Your task to perform on an android device: Clear the shopping cart on target. Image 0: 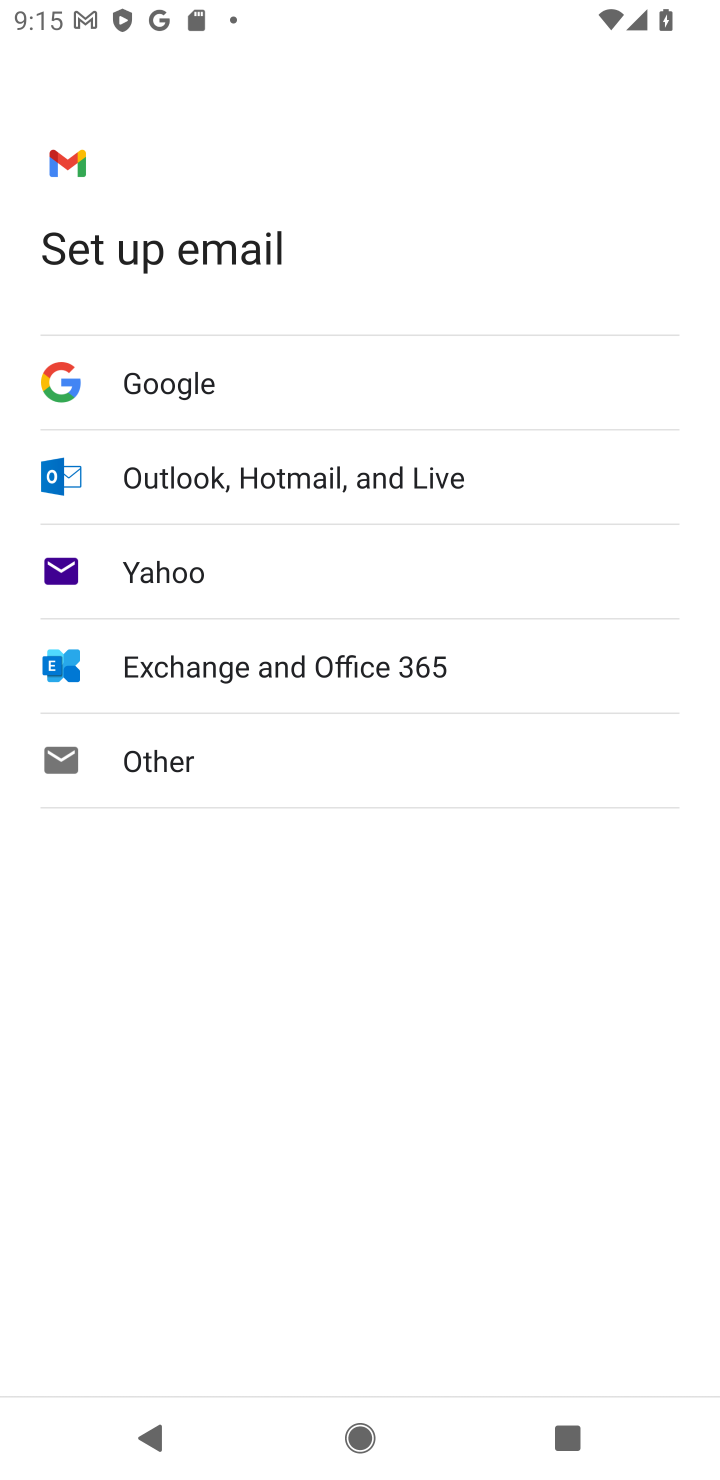
Step 0: press home button
Your task to perform on an android device: Clear the shopping cart on target. Image 1: 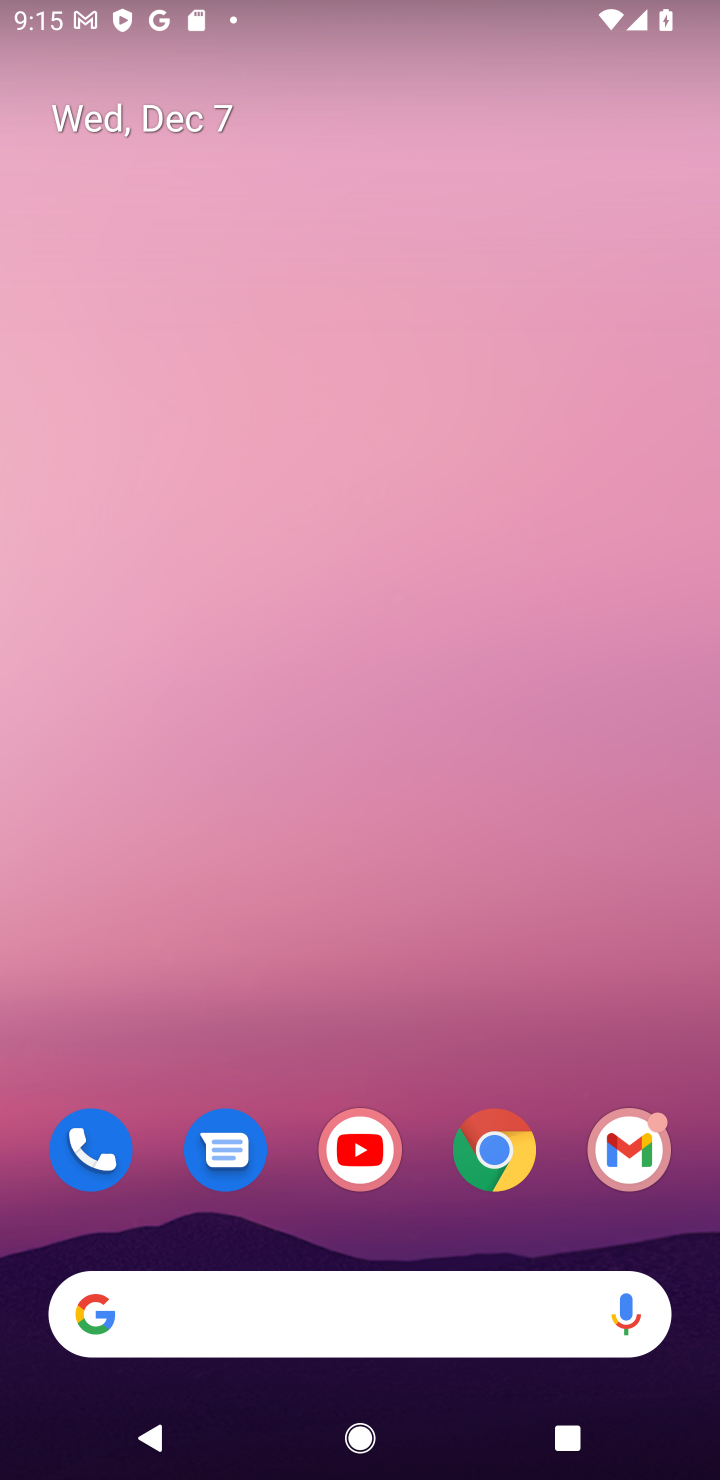
Step 1: click (468, 1148)
Your task to perform on an android device: Clear the shopping cart on target. Image 2: 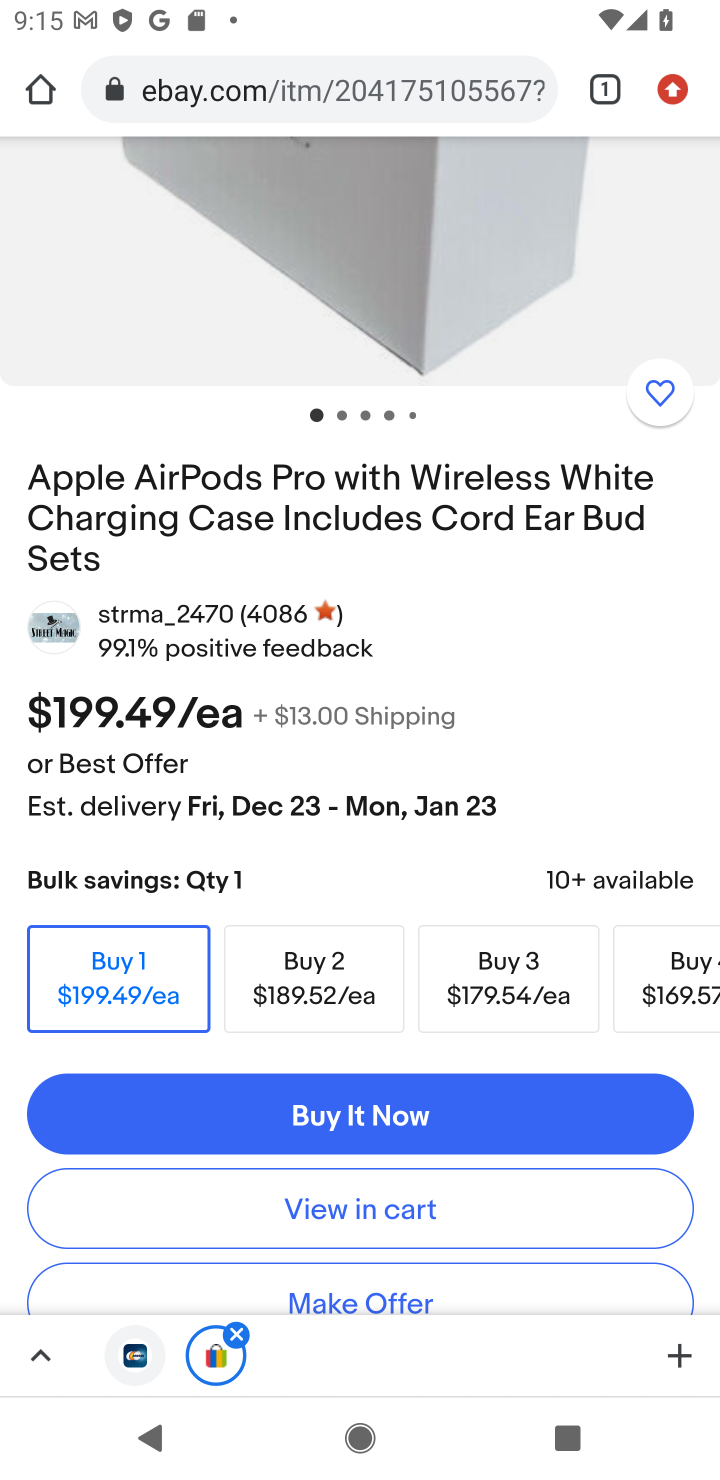
Step 2: click (378, 78)
Your task to perform on an android device: Clear the shopping cart on target. Image 3: 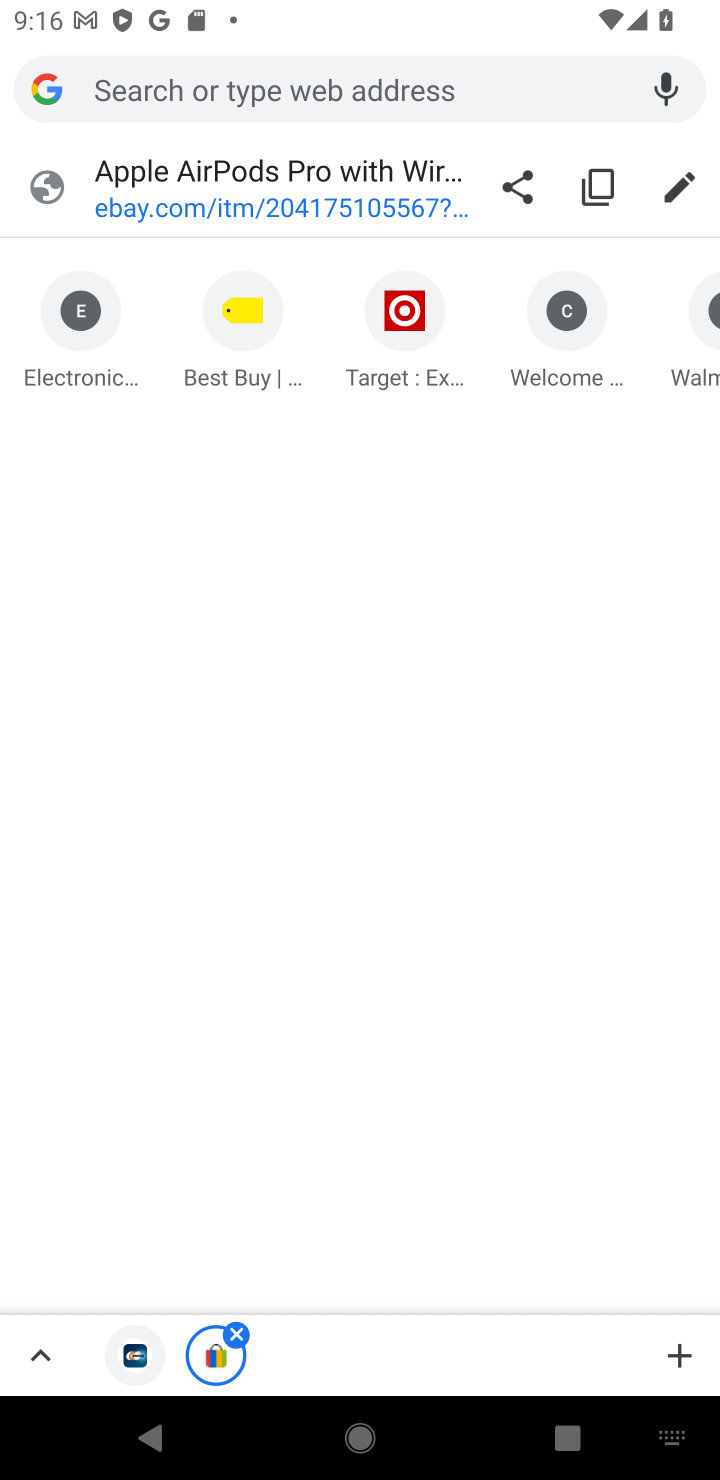
Step 3: click (397, 309)
Your task to perform on an android device: Clear the shopping cart on target. Image 4: 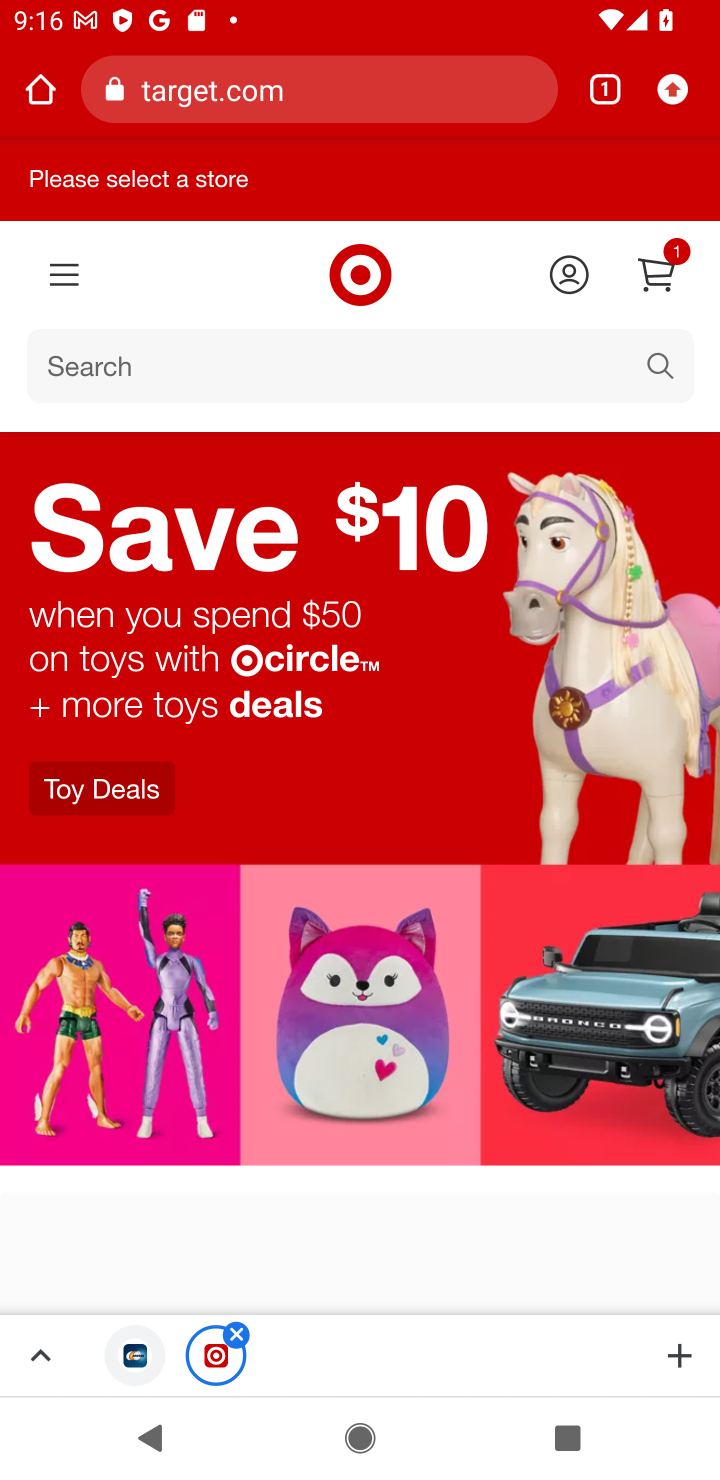
Step 4: click (654, 283)
Your task to perform on an android device: Clear the shopping cart on target. Image 5: 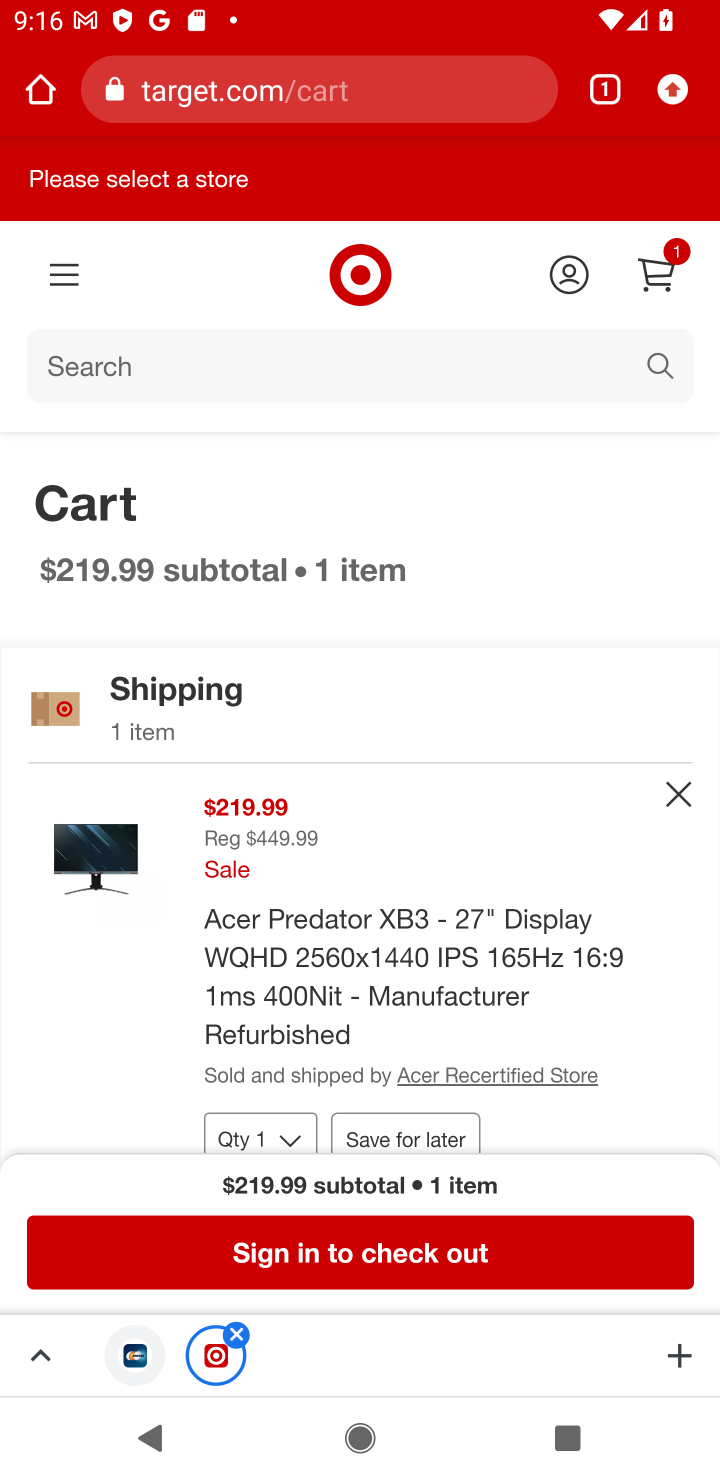
Step 5: click (683, 779)
Your task to perform on an android device: Clear the shopping cart on target. Image 6: 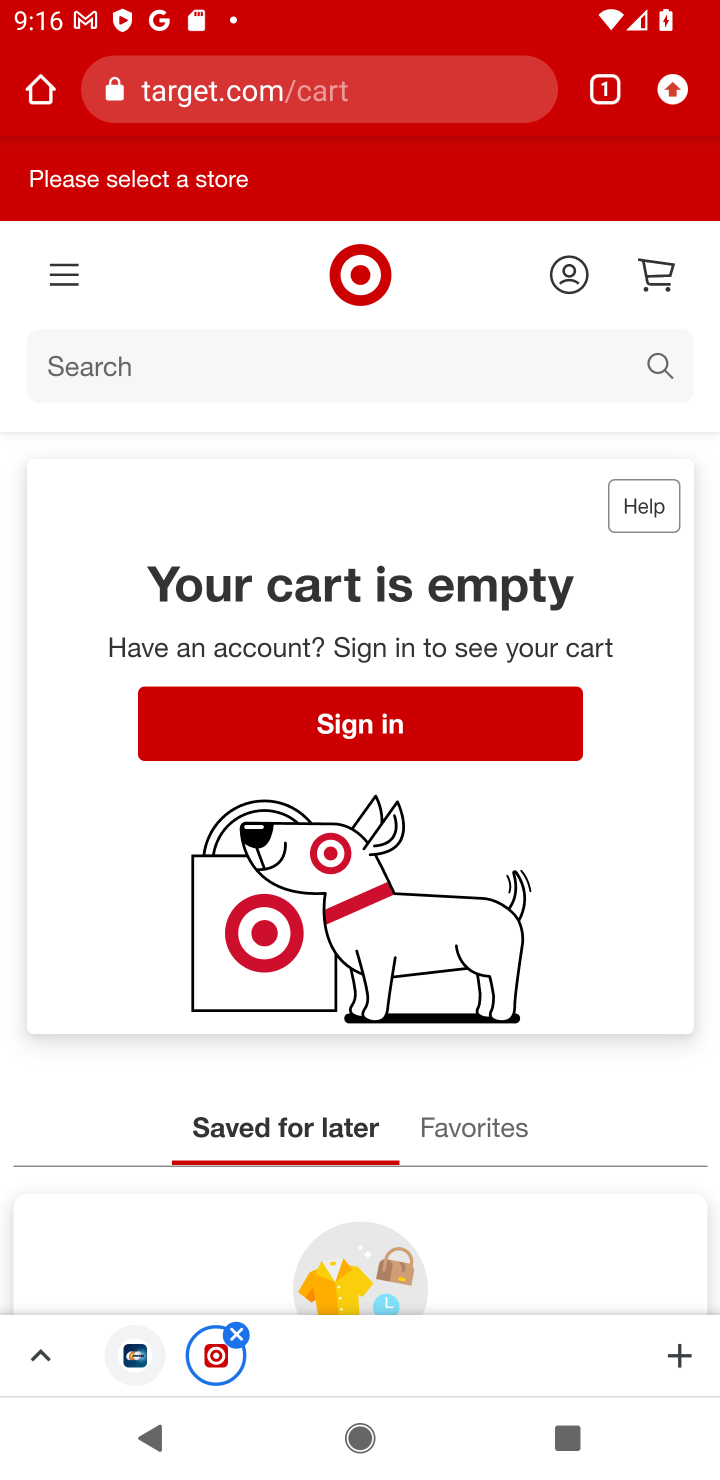
Step 6: task complete